Your task to perform on an android device: Show me popular games on the Play Store Image 0: 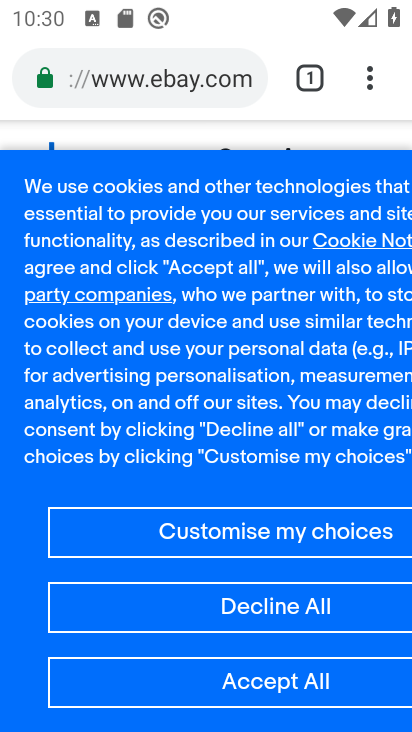
Step 0: press home button
Your task to perform on an android device: Show me popular games on the Play Store Image 1: 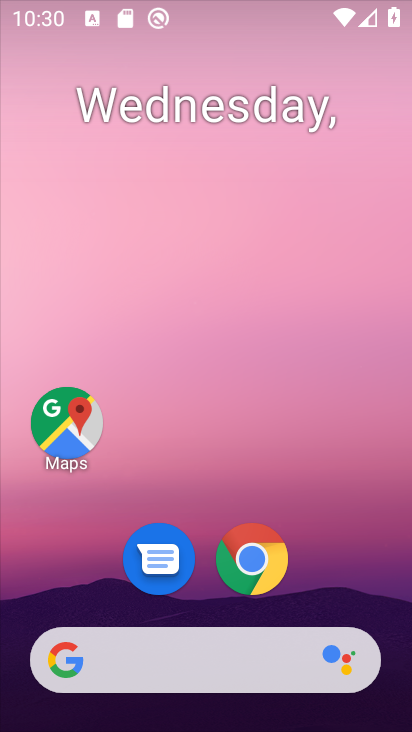
Step 1: drag from (247, 624) to (235, 94)
Your task to perform on an android device: Show me popular games on the Play Store Image 2: 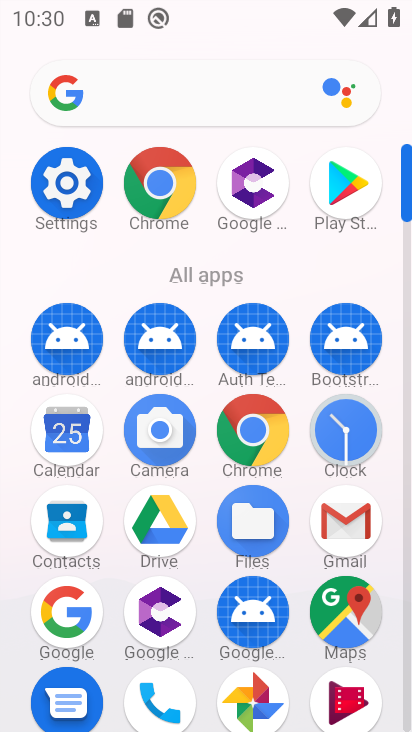
Step 2: drag from (177, 557) to (193, 129)
Your task to perform on an android device: Show me popular games on the Play Store Image 3: 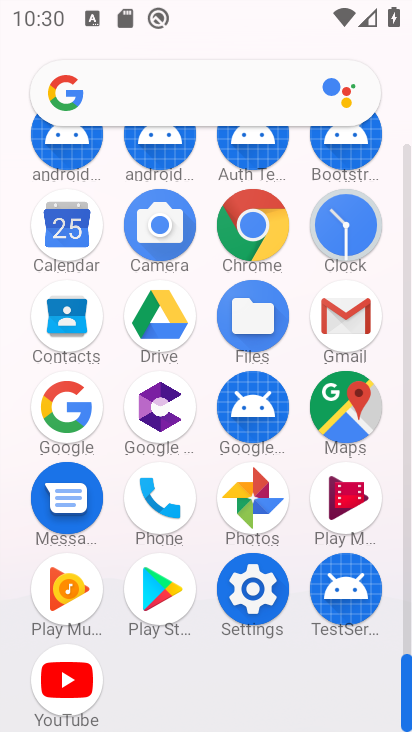
Step 3: click (159, 598)
Your task to perform on an android device: Show me popular games on the Play Store Image 4: 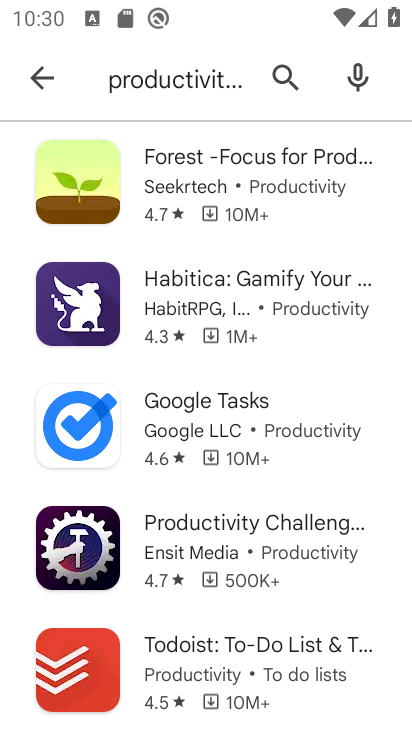
Step 4: click (43, 77)
Your task to perform on an android device: Show me popular games on the Play Store Image 5: 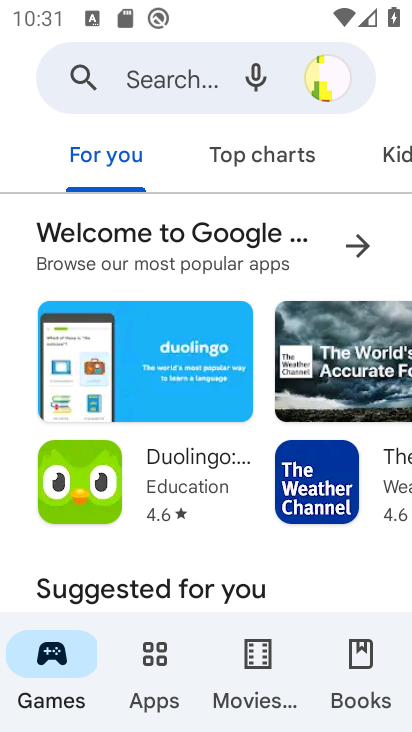
Step 5: task complete